Your task to perform on an android device: Open Youtube and go to "Your channel" Image 0: 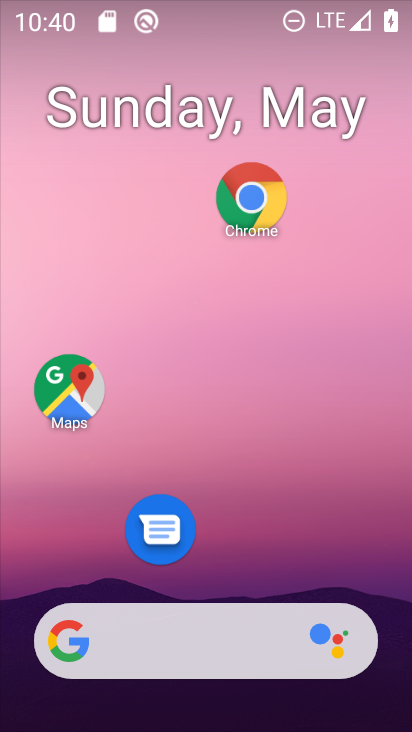
Step 0: drag from (258, 563) to (282, 54)
Your task to perform on an android device: Open Youtube and go to "Your channel" Image 1: 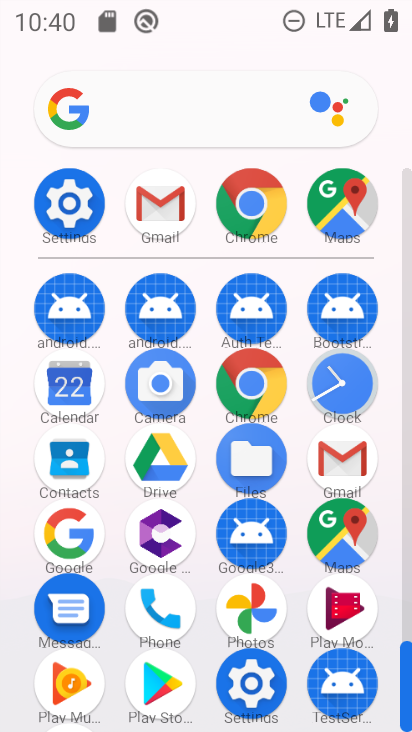
Step 1: drag from (206, 578) to (218, 214)
Your task to perform on an android device: Open Youtube and go to "Your channel" Image 2: 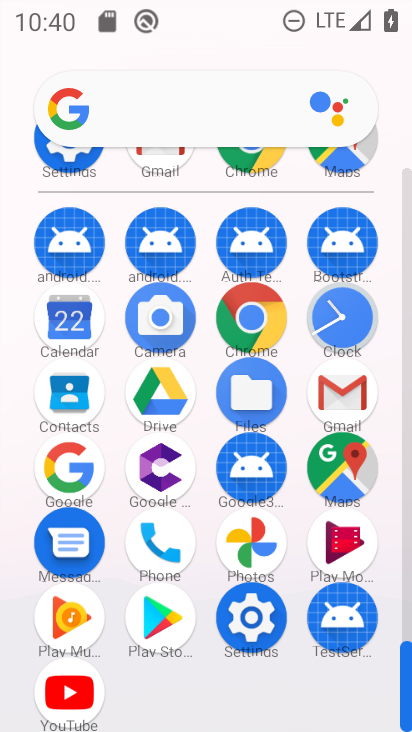
Step 2: click (68, 689)
Your task to perform on an android device: Open Youtube and go to "Your channel" Image 3: 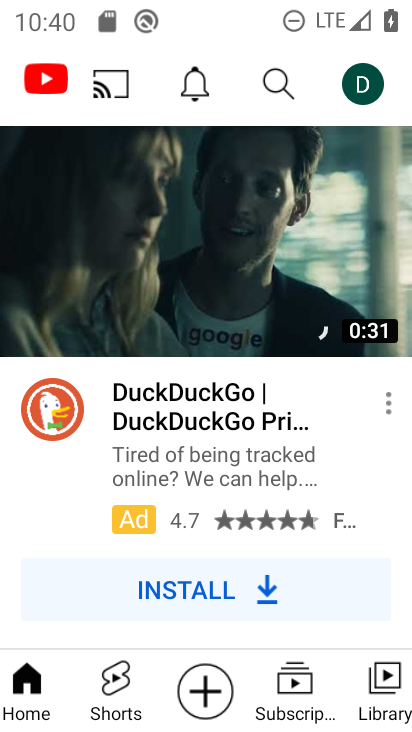
Step 3: click (358, 85)
Your task to perform on an android device: Open Youtube and go to "Your channel" Image 4: 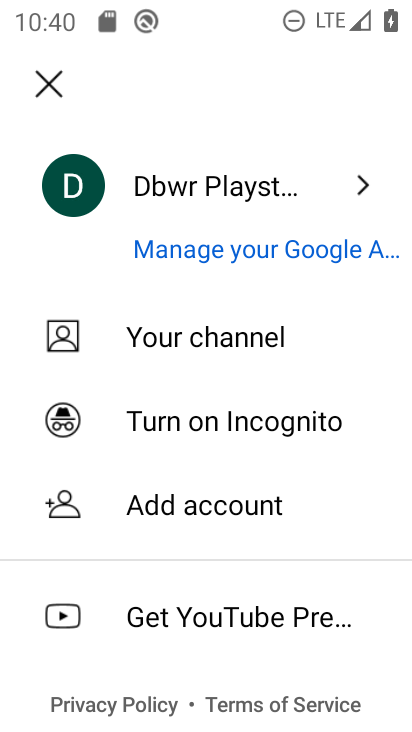
Step 4: click (209, 345)
Your task to perform on an android device: Open Youtube and go to "Your channel" Image 5: 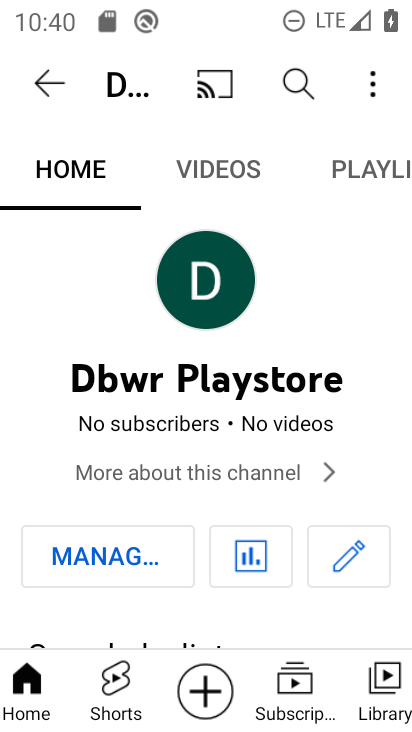
Step 5: task complete